Your task to perform on an android device: add a label to a message in the gmail app Image 0: 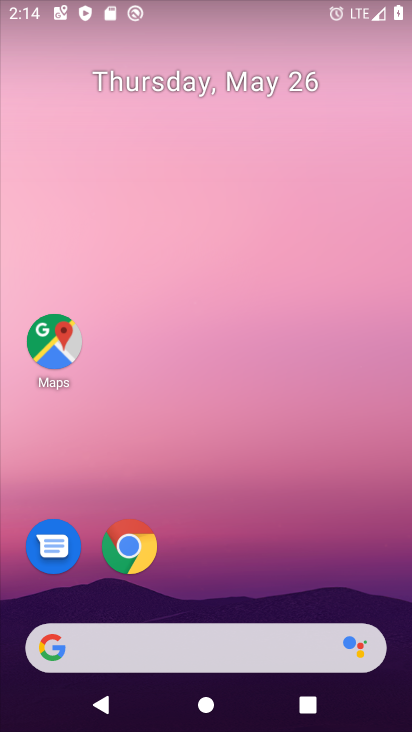
Step 0: drag from (207, 589) to (253, 32)
Your task to perform on an android device: add a label to a message in the gmail app Image 1: 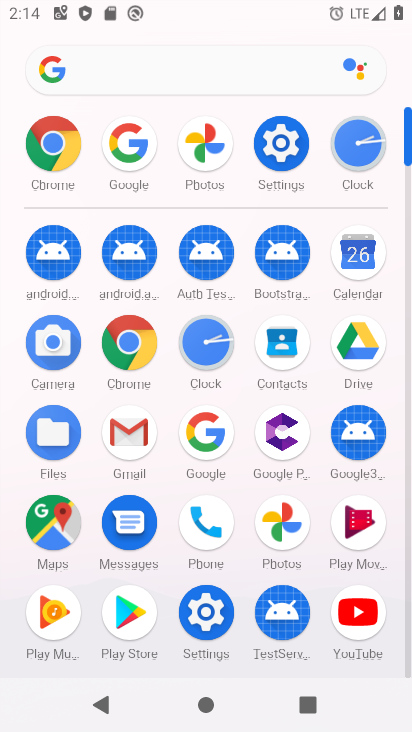
Step 1: click (128, 433)
Your task to perform on an android device: add a label to a message in the gmail app Image 2: 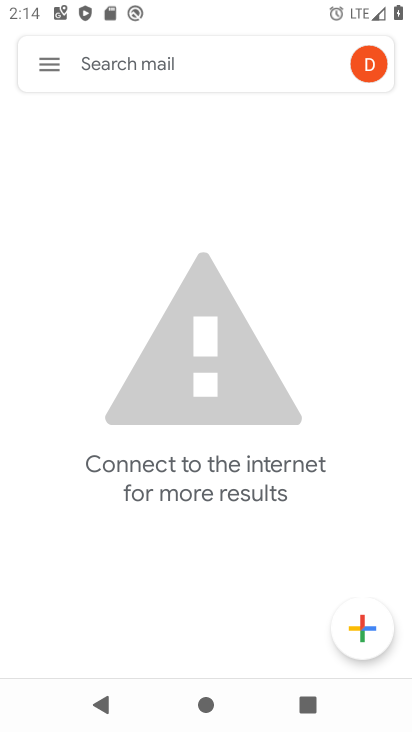
Step 2: click (48, 59)
Your task to perform on an android device: add a label to a message in the gmail app Image 3: 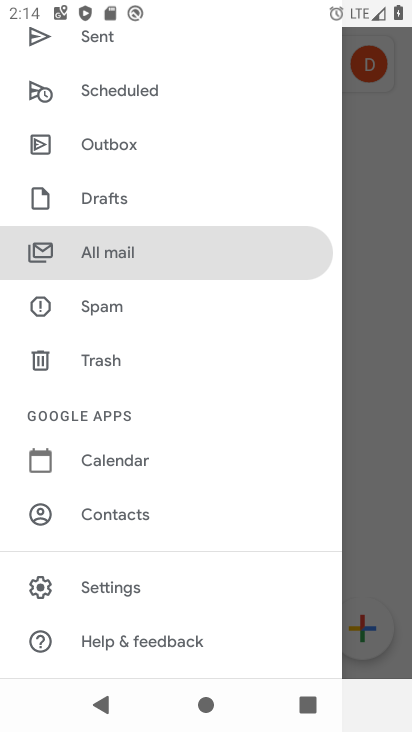
Step 3: click (364, 221)
Your task to perform on an android device: add a label to a message in the gmail app Image 4: 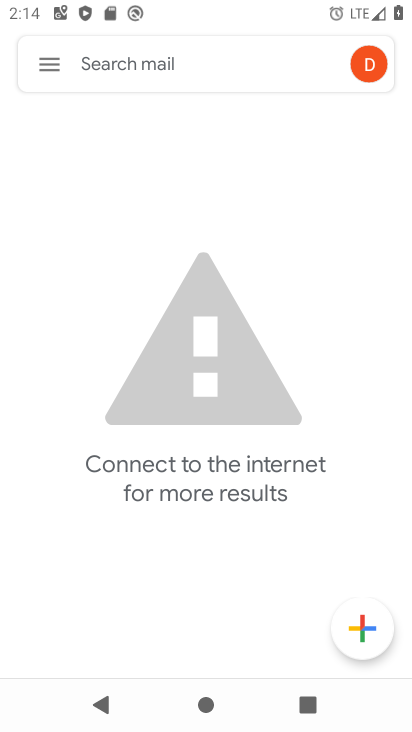
Step 4: task complete